Your task to perform on an android device: Open Google Image 0: 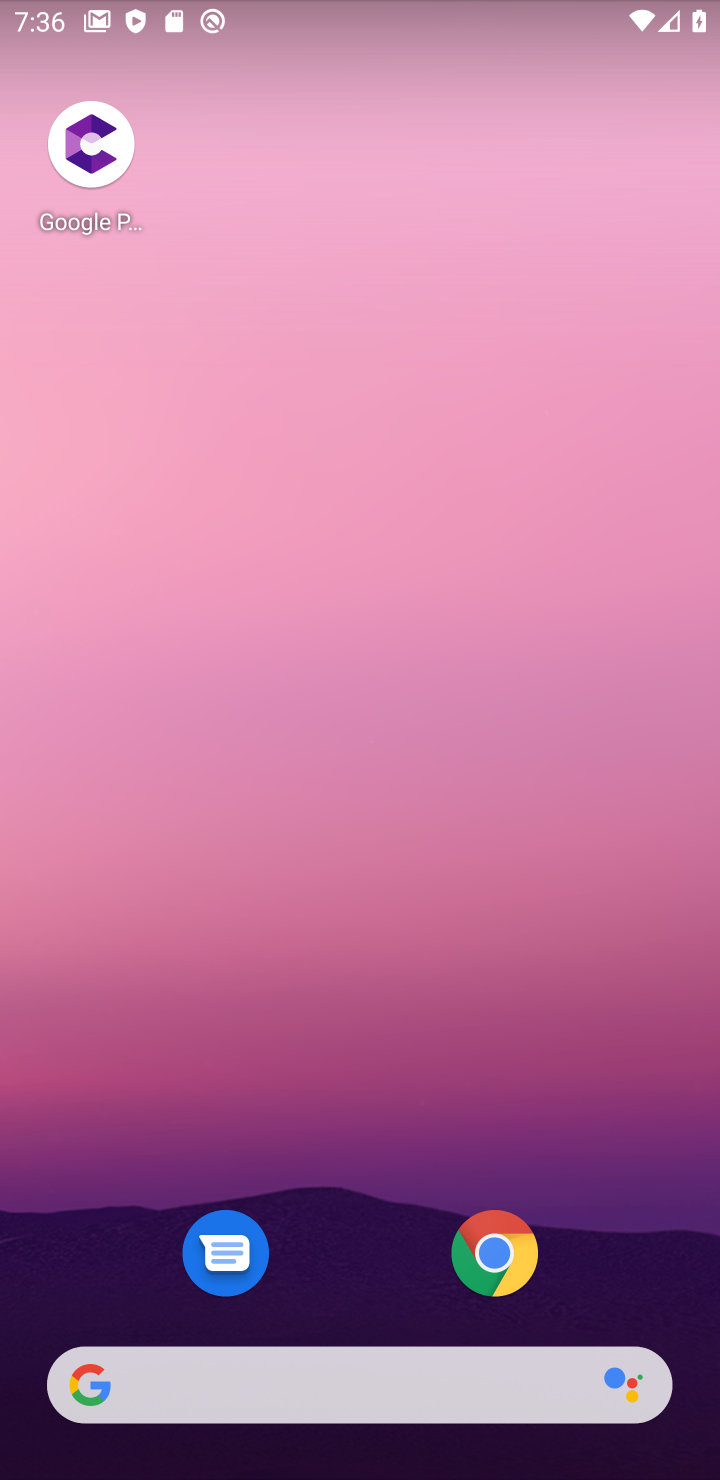
Step 0: drag from (357, 1341) to (488, 120)
Your task to perform on an android device: Open Google Image 1: 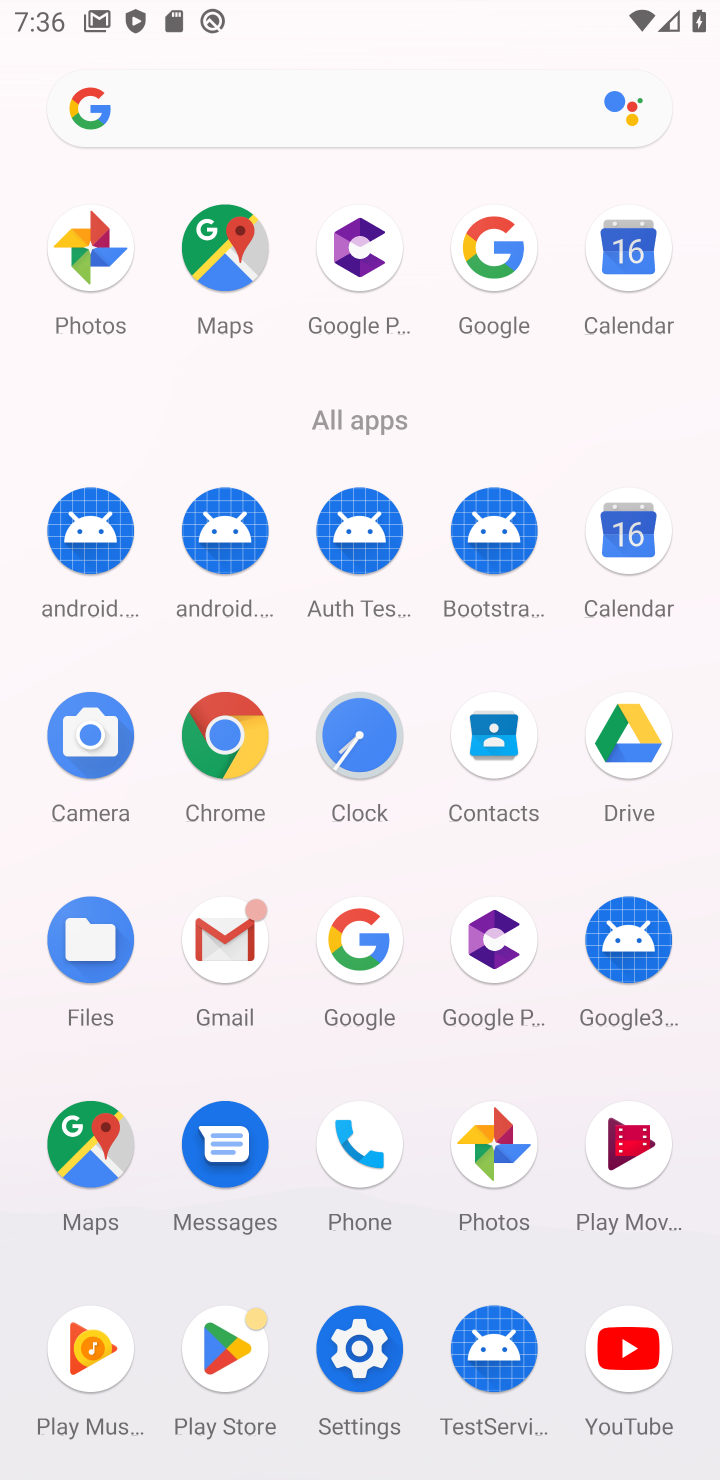
Step 1: click (355, 938)
Your task to perform on an android device: Open Google Image 2: 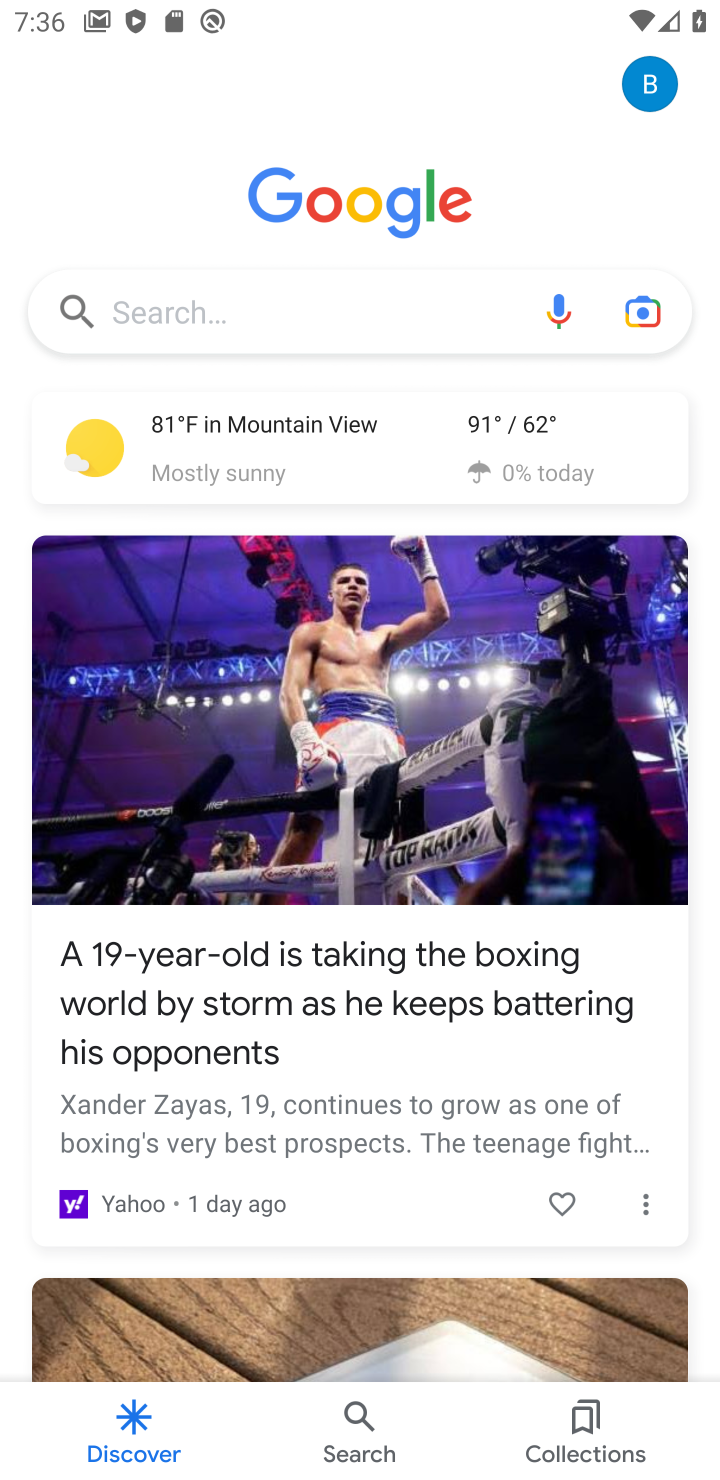
Step 2: task complete